Your task to perform on an android device: check battery use Image 0: 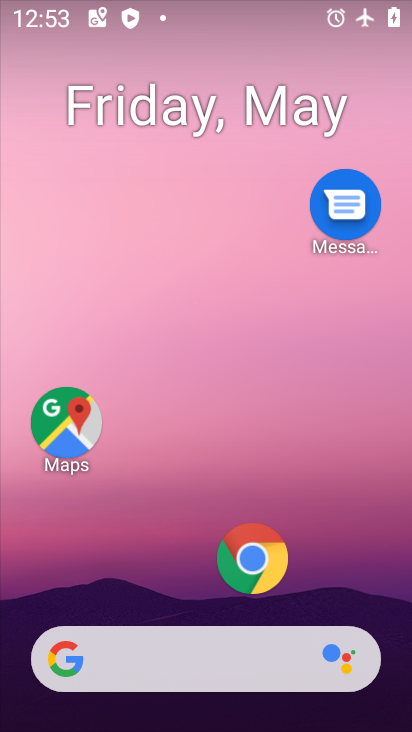
Step 0: drag from (157, 642) to (181, 138)
Your task to perform on an android device: check battery use Image 1: 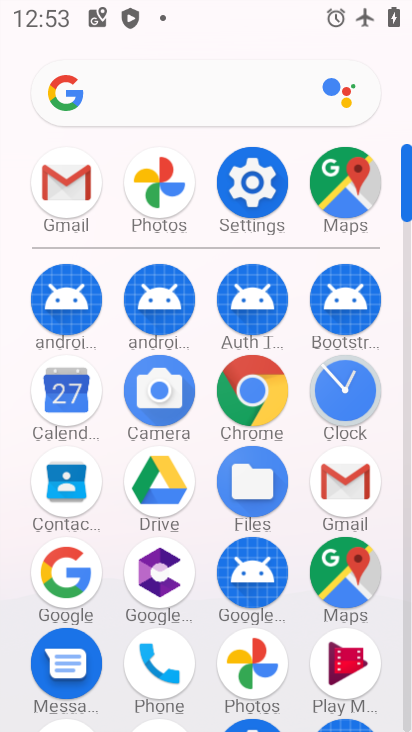
Step 1: click (256, 197)
Your task to perform on an android device: check battery use Image 2: 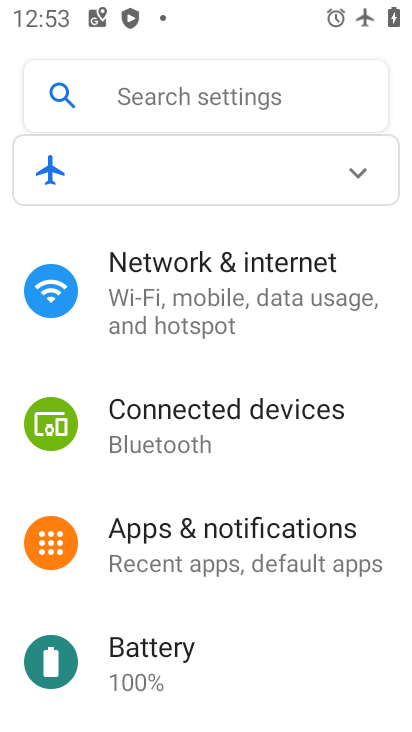
Step 2: drag from (215, 561) to (197, 416)
Your task to perform on an android device: check battery use Image 3: 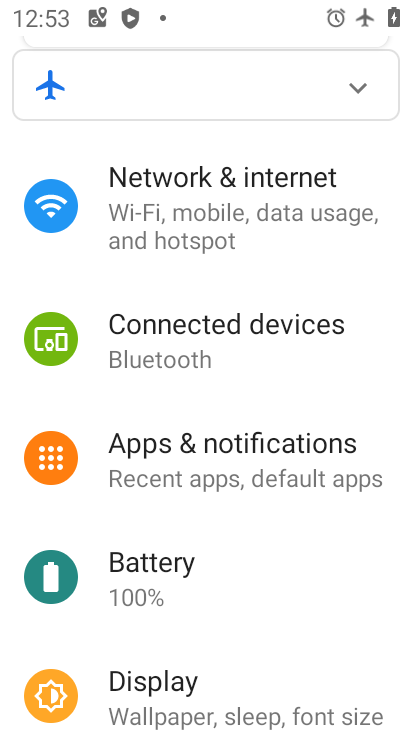
Step 3: click (190, 577)
Your task to perform on an android device: check battery use Image 4: 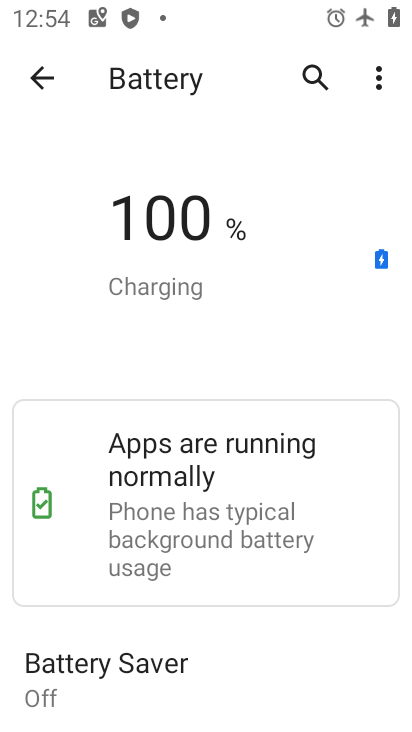
Step 4: task complete